Your task to perform on an android device: find snoozed emails in the gmail app Image 0: 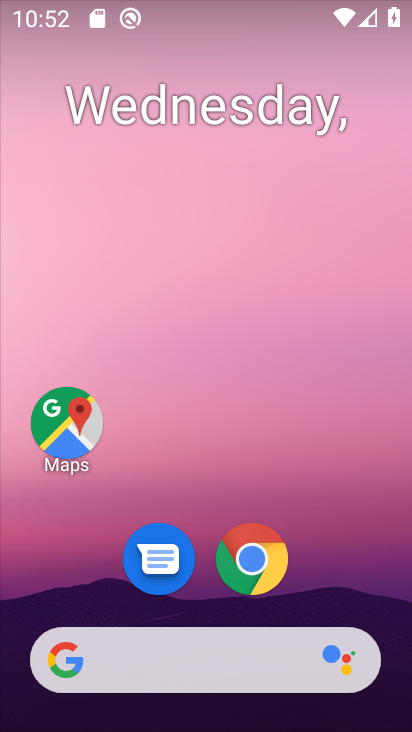
Step 0: press home button
Your task to perform on an android device: find snoozed emails in the gmail app Image 1: 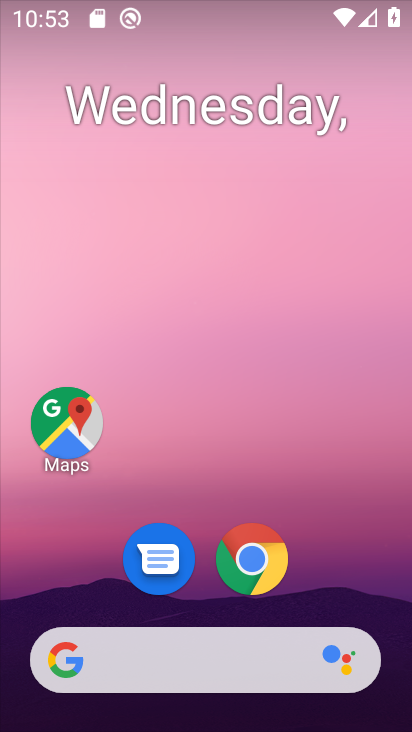
Step 1: drag from (232, 697) to (272, 161)
Your task to perform on an android device: find snoozed emails in the gmail app Image 2: 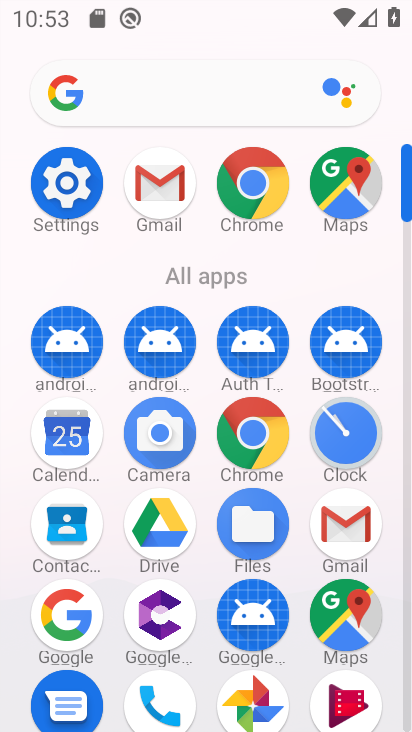
Step 2: click (173, 163)
Your task to perform on an android device: find snoozed emails in the gmail app Image 3: 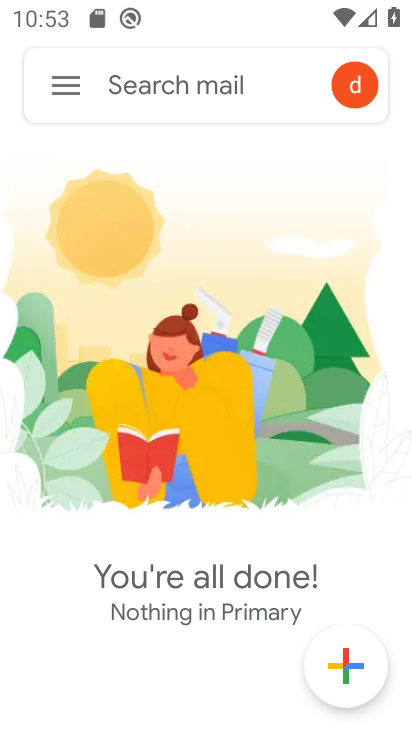
Step 3: click (72, 87)
Your task to perform on an android device: find snoozed emails in the gmail app Image 4: 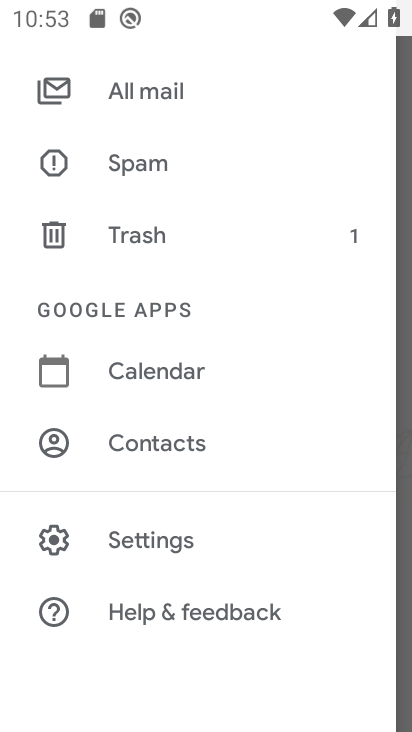
Step 4: click (174, 540)
Your task to perform on an android device: find snoozed emails in the gmail app Image 5: 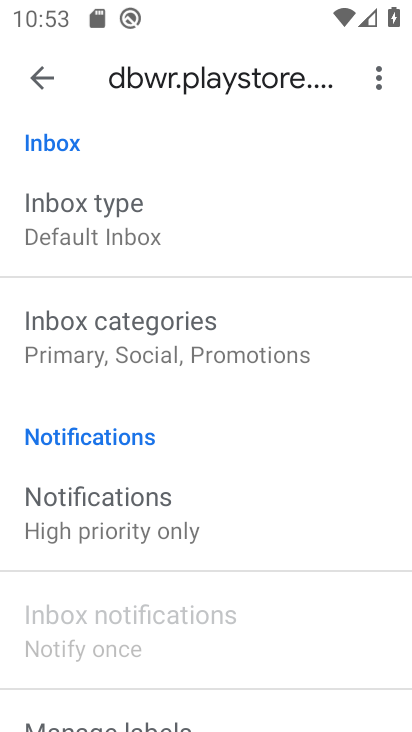
Step 5: click (45, 79)
Your task to perform on an android device: find snoozed emails in the gmail app Image 6: 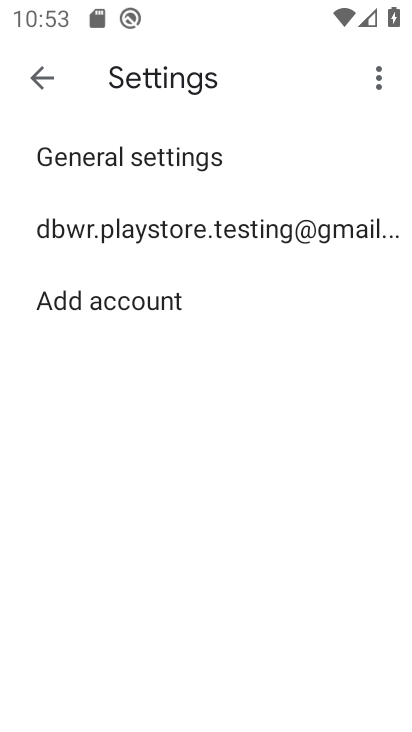
Step 6: click (42, 83)
Your task to perform on an android device: find snoozed emails in the gmail app Image 7: 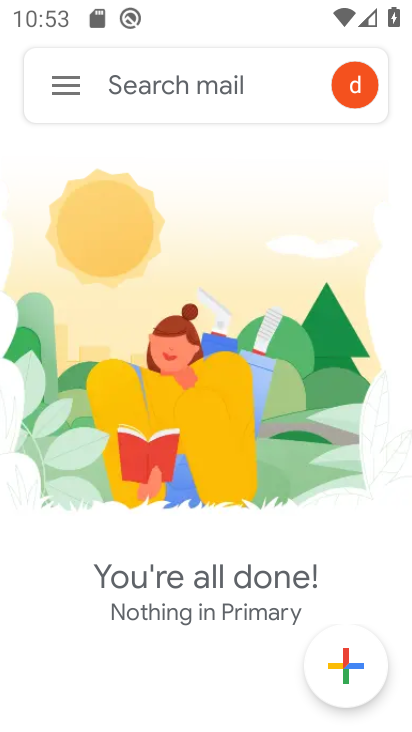
Step 7: click (64, 74)
Your task to perform on an android device: find snoozed emails in the gmail app Image 8: 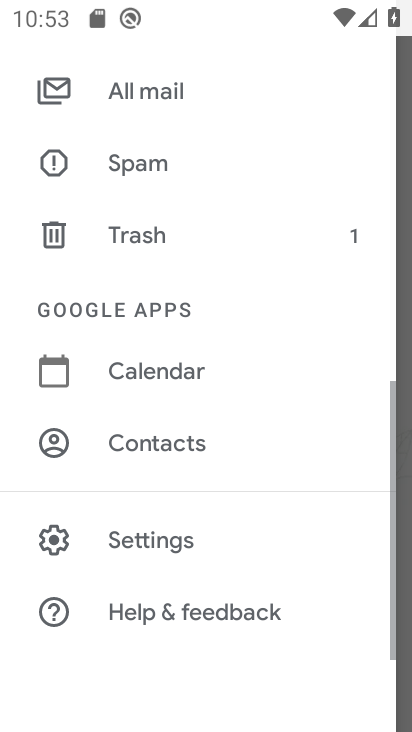
Step 8: drag from (154, 184) to (279, 619)
Your task to perform on an android device: find snoozed emails in the gmail app Image 9: 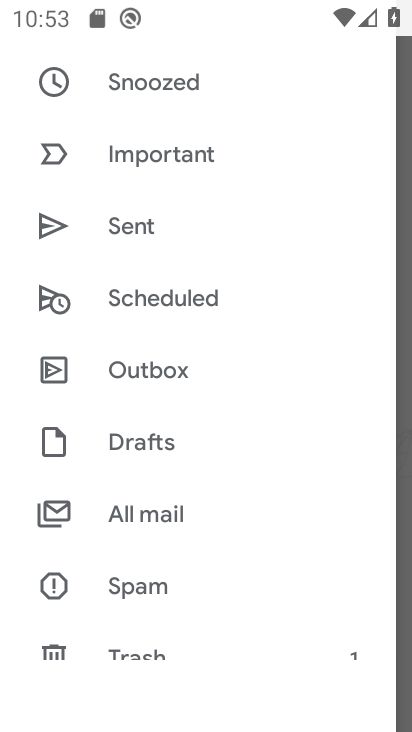
Step 9: click (173, 86)
Your task to perform on an android device: find snoozed emails in the gmail app Image 10: 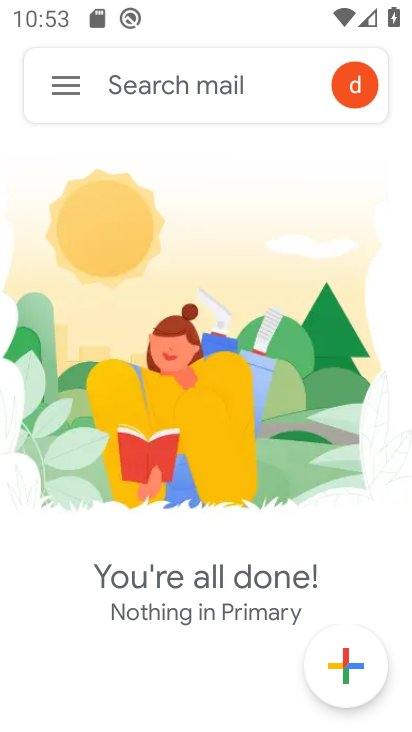
Step 10: task complete